Your task to perform on an android device: turn on improve location accuracy Image 0: 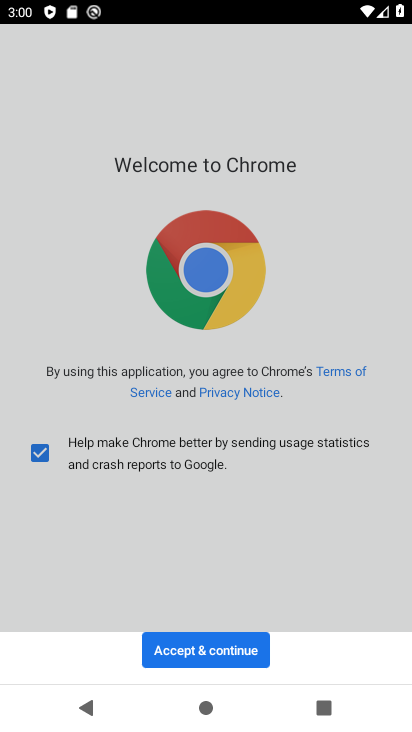
Step 0: press home button
Your task to perform on an android device: turn on improve location accuracy Image 1: 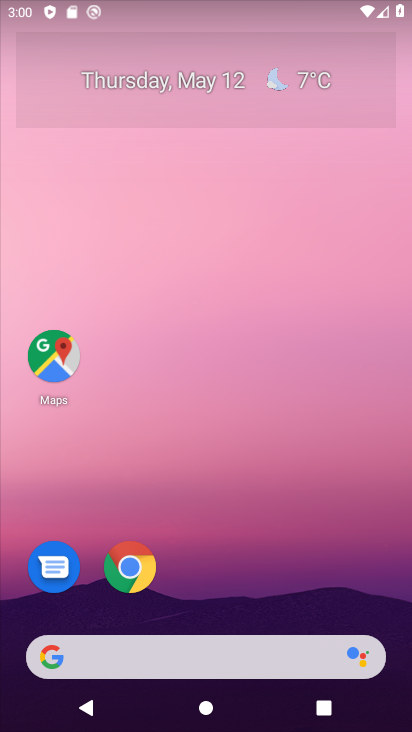
Step 1: drag from (264, 577) to (300, 1)
Your task to perform on an android device: turn on improve location accuracy Image 2: 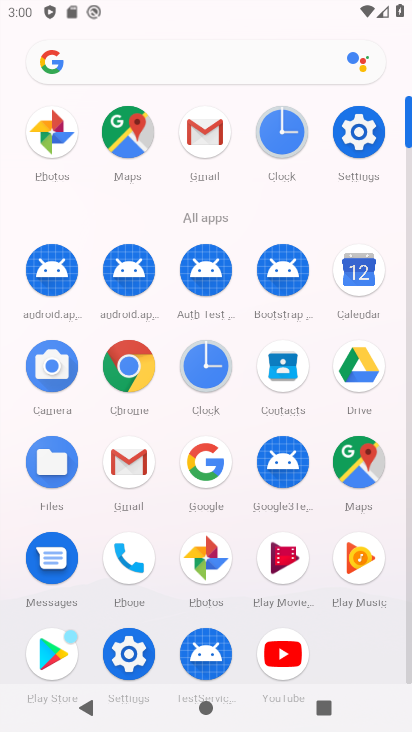
Step 2: click (349, 135)
Your task to perform on an android device: turn on improve location accuracy Image 3: 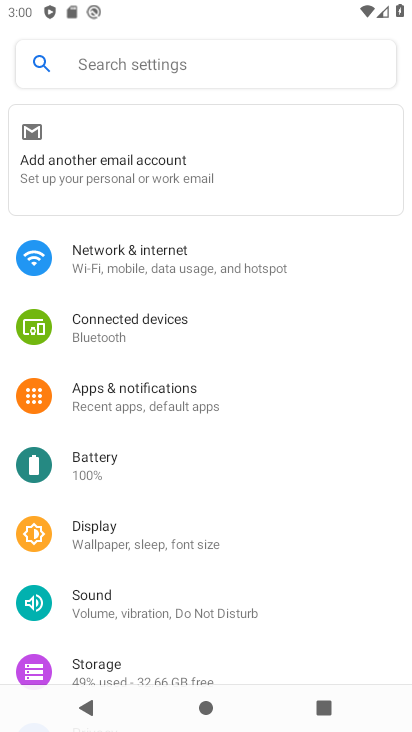
Step 3: drag from (216, 576) to (304, 336)
Your task to perform on an android device: turn on improve location accuracy Image 4: 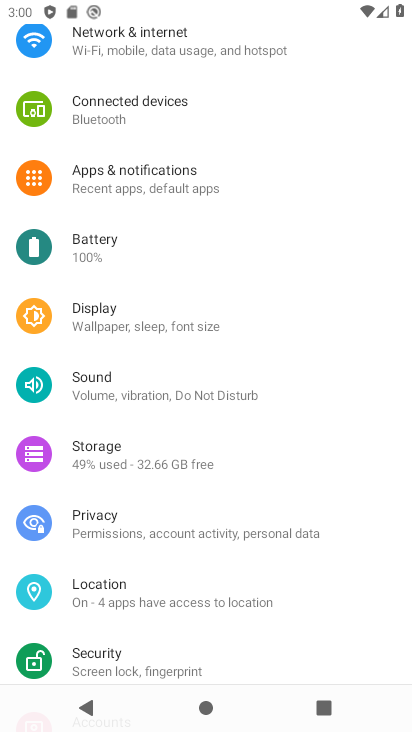
Step 4: click (108, 605)
Your task to perform on an android device: turn on improve location accuracy Image 5: 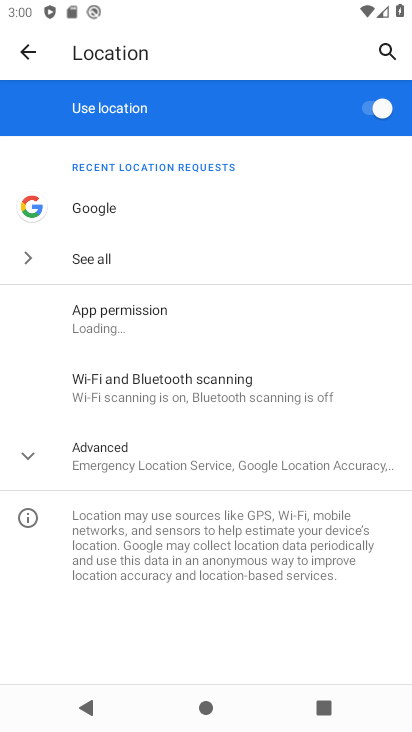
Step 5: click (180, 463)
Your task to perform on an android device: turn on improve location accuracy Image 6: 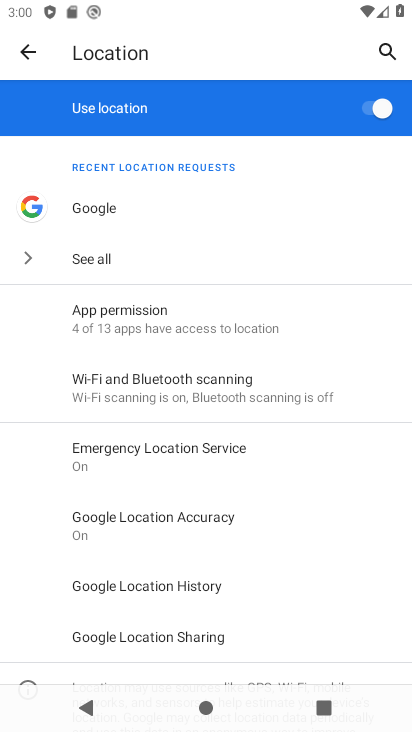
Step 6: click (205, 513)
Your task to perform on an android device: turn on improve location accuracy Image 7: 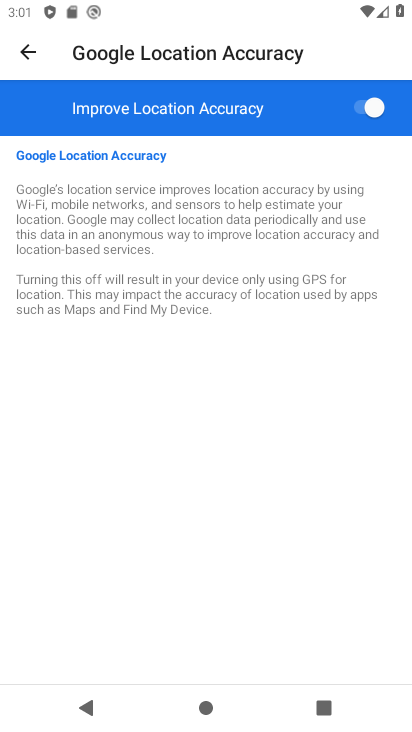
Step 7: task complete